Your task to perform on an android device: Open Chrome and go to the settings page Image 0: 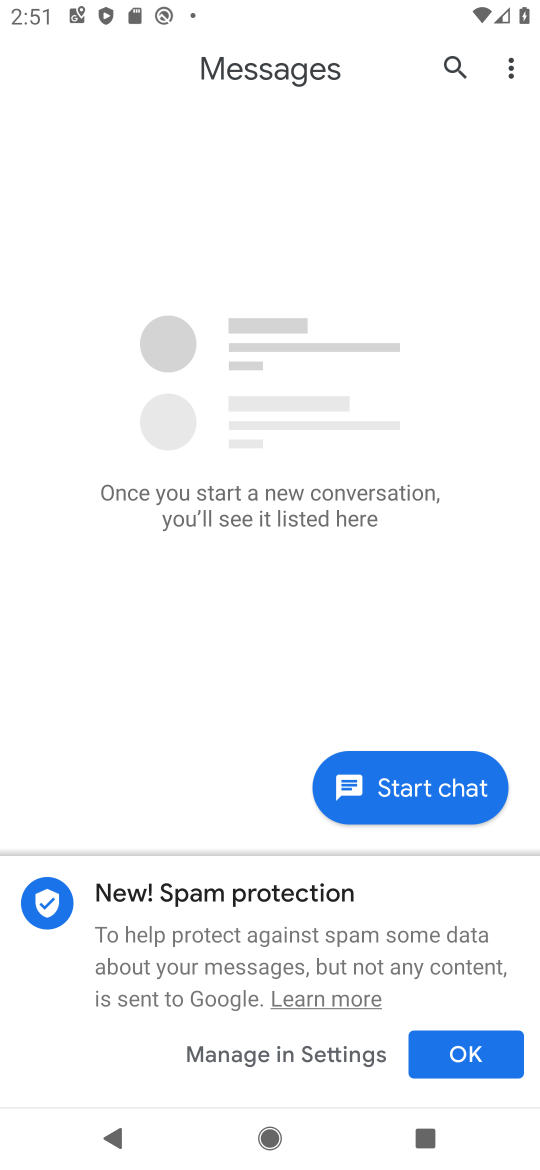
Step 0: press home button
Your task to perform on an android device: Open Chrome and go to the settings page Image 1: 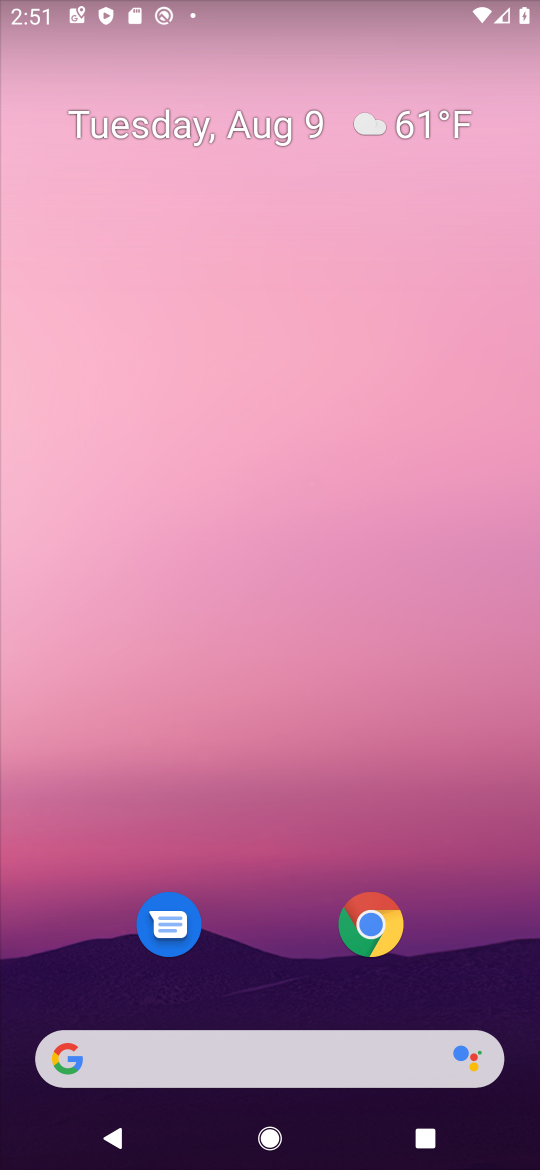
Step 1: click (388, 921)
Your task to perform on an android device: Open Chrome and go to the settings page Image 2: 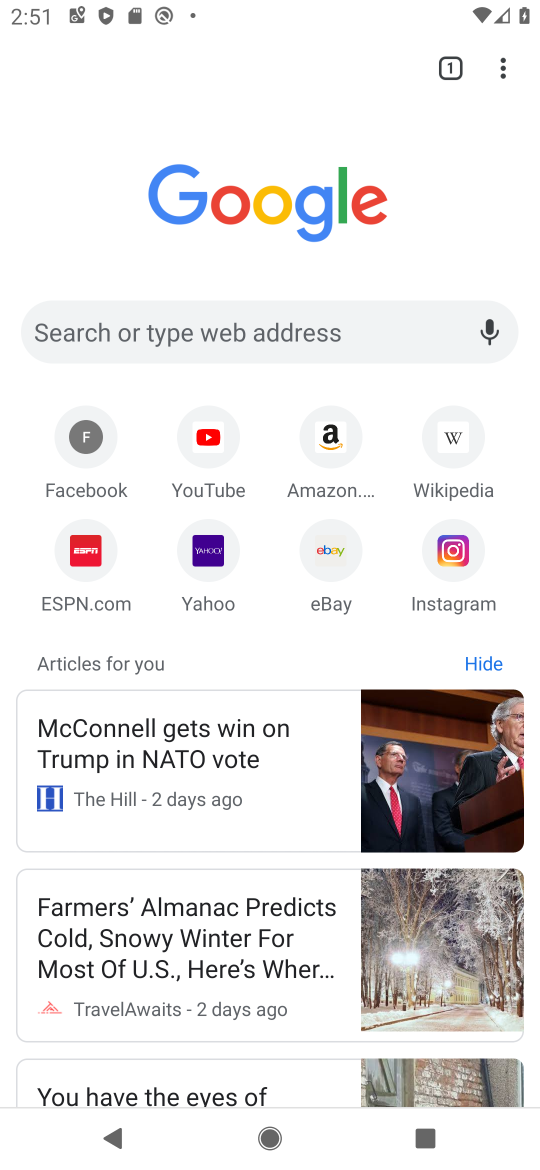
Step 2: click (506, 70)
Your task to perform on an android device: Open Chrome and go to the settings page Image 3: 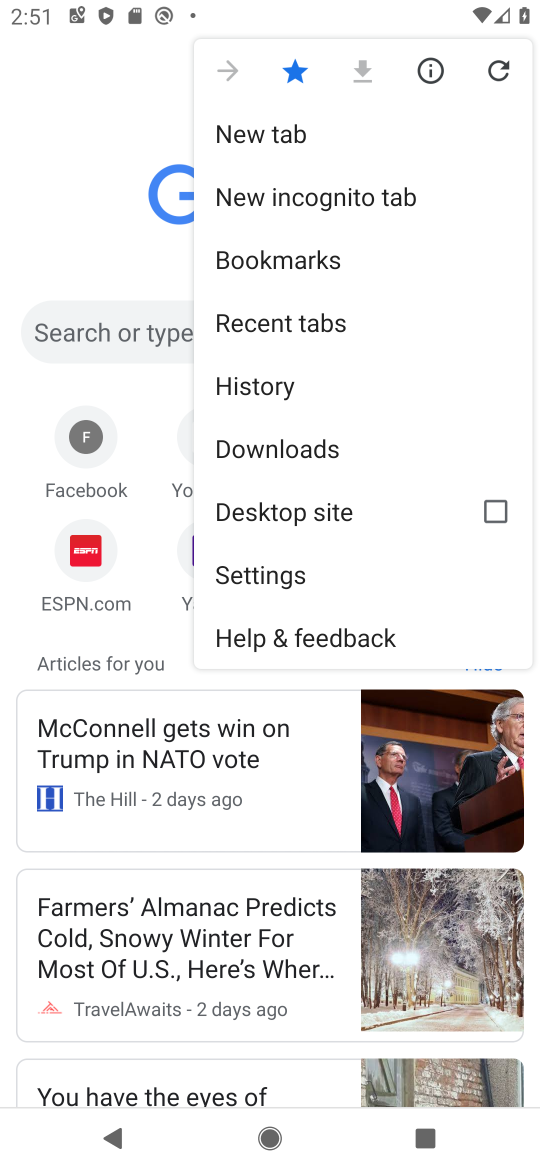
Step 3: click (295, 564)
Your task to perform on an android device: Open Chrome and go to the settings page Image 4: 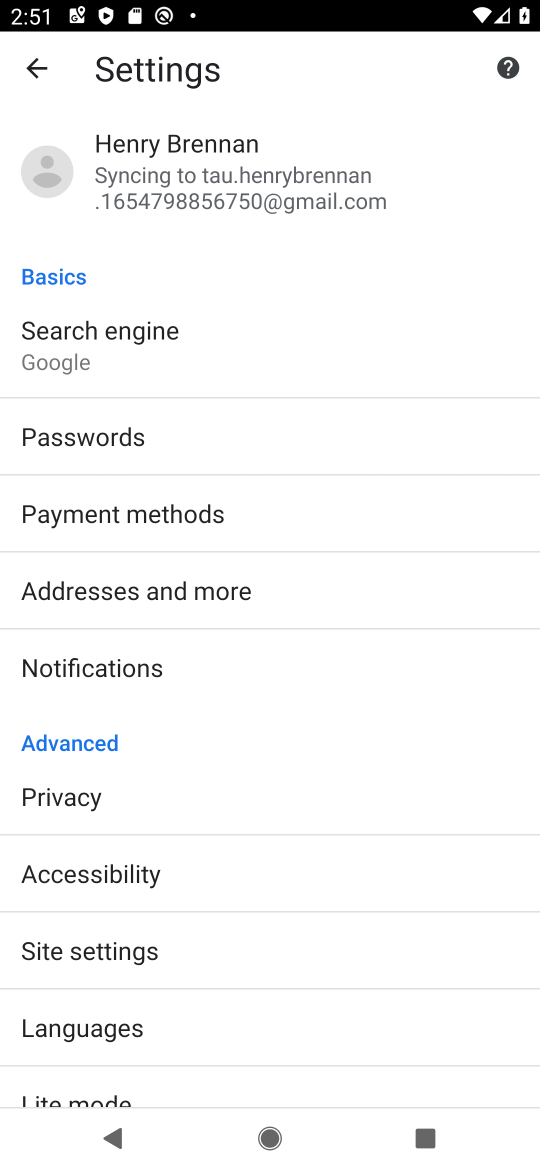
Step 4: task complete